Your task to perform on an android device: What's the weather? Image 0: 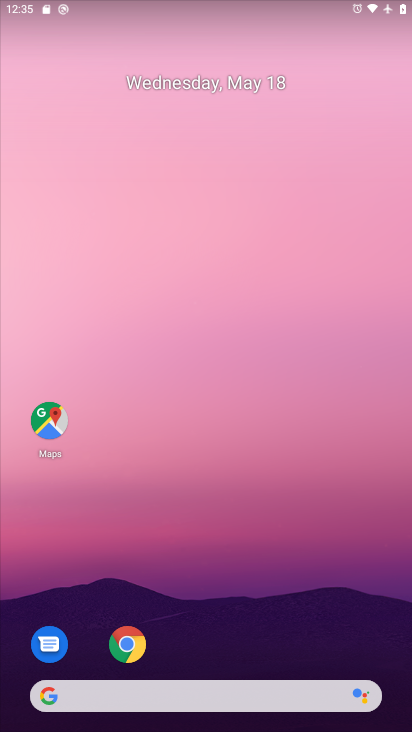
Step 0: drag from (21, 256) to (382, 265)
Your task to perform on an android device: What's the weather? Image 1: 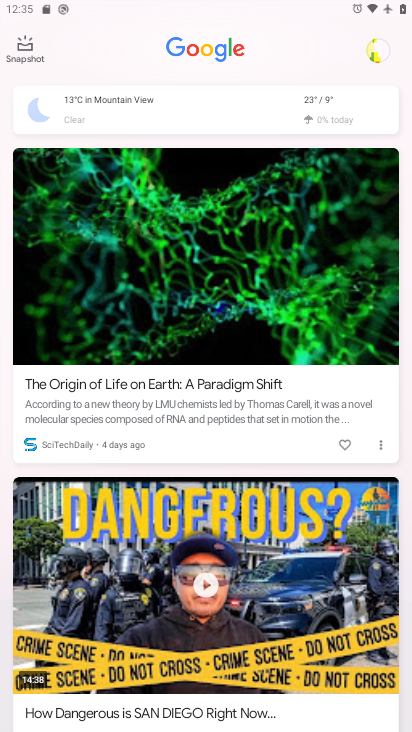
Step 1: click (322, 106)
Your task to perform on an android device: What's the weather? Image 2: 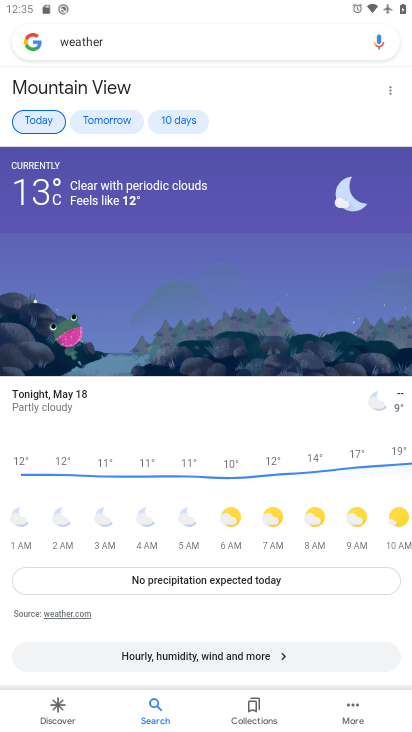
Step 2: task complete